Your task to perform on an android device: Open Reddit.com Image 0: 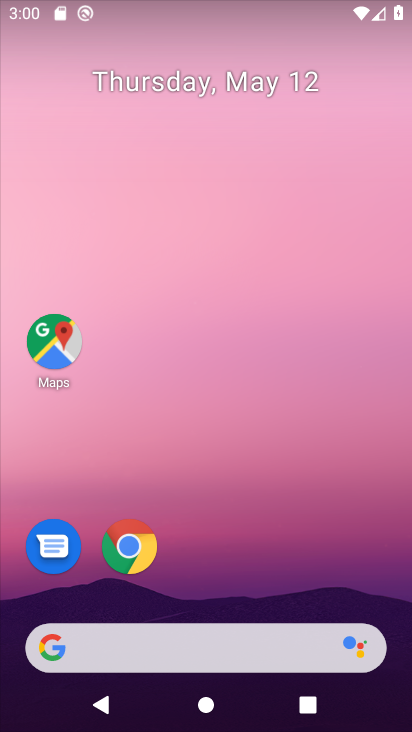
Step 0: drag from (246, 550) to (226, 266)
Your task to perform on an android device: Open Reddit.com Image 1: 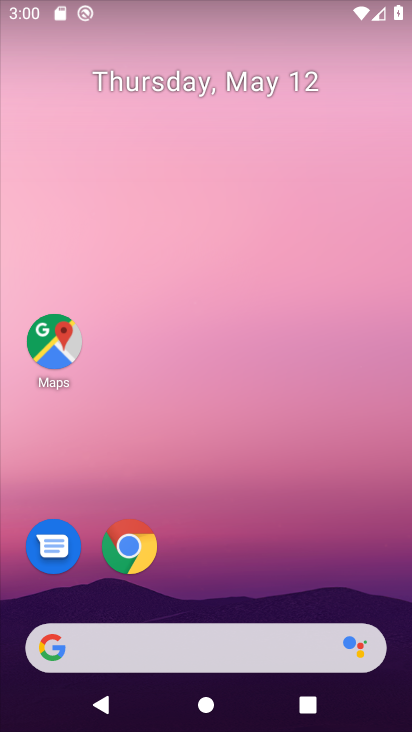
Step 1: drag from (209, 604) to (250, 125)
Your task to perform on an android device: Open Reddit.com Image 2: 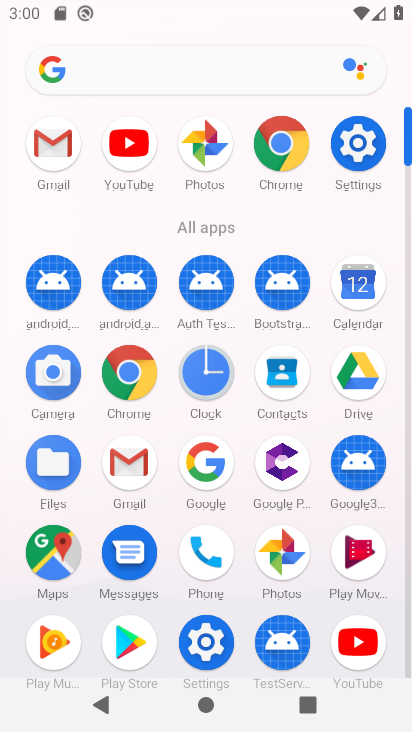
Step 2: click (275, 135)
Your task to perform on an android device: Open Reddit.com Image 3: 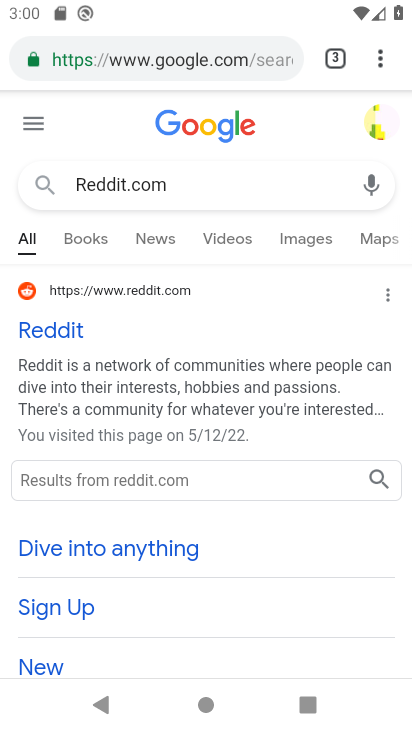
Step 3: task complete